Your task to perform on an android device: Open settings on Google Maps Image 0: 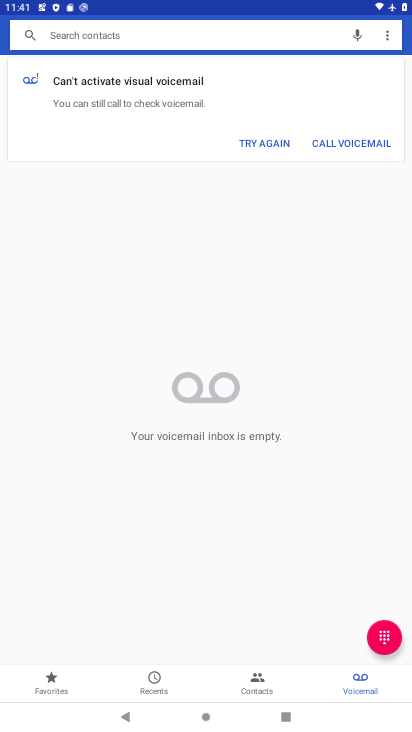
Step 0: press home button
Your task to perform on an android device: Open settings on Google Maps Image 1: 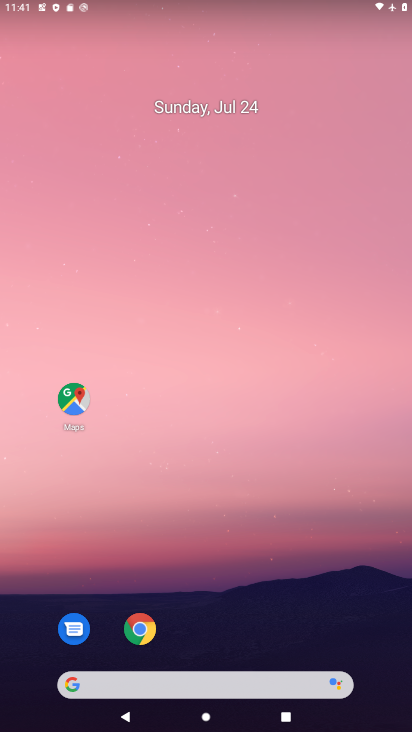
Step 1: click (78, 413)
Your task to perform on an android device: Open settings on Google Maps Image 2: 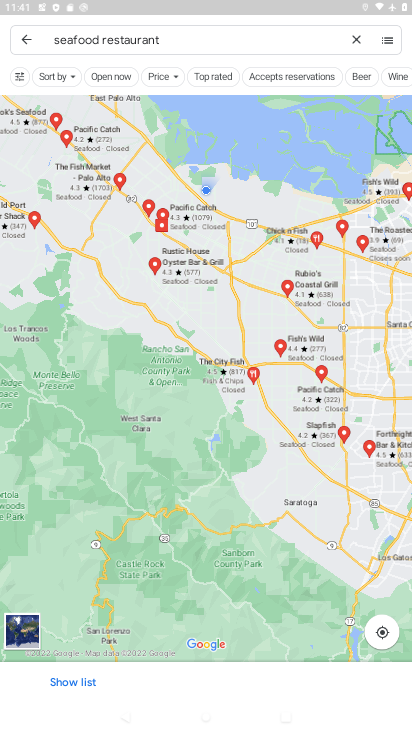
Step 2: click (24, 42)
Your task to perform on an android device: Open settings on Google Maps Image 3: 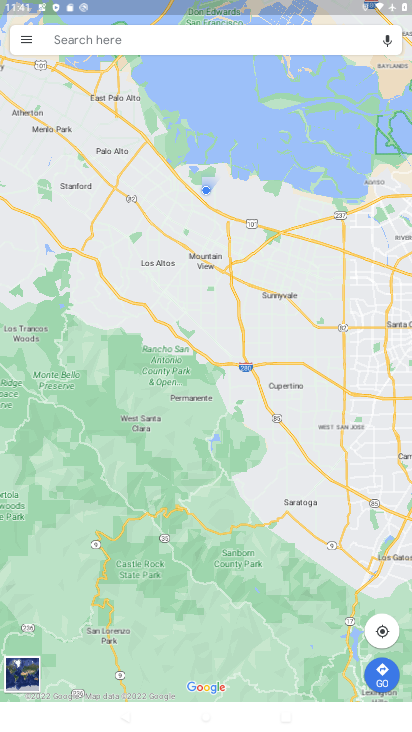
Step 3: click (32, 37)
Your task to perform on an android device: Open settings on Google Maps Image 4: 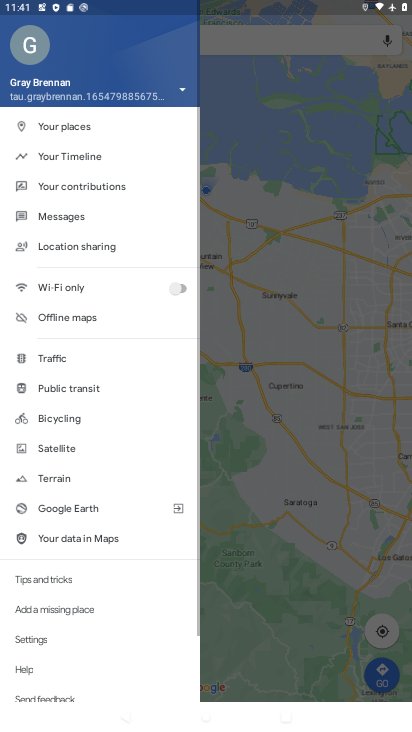
Step 4: click (84, 161)
Your task to perform on an android device: Open settings on Google Maps Image 5: 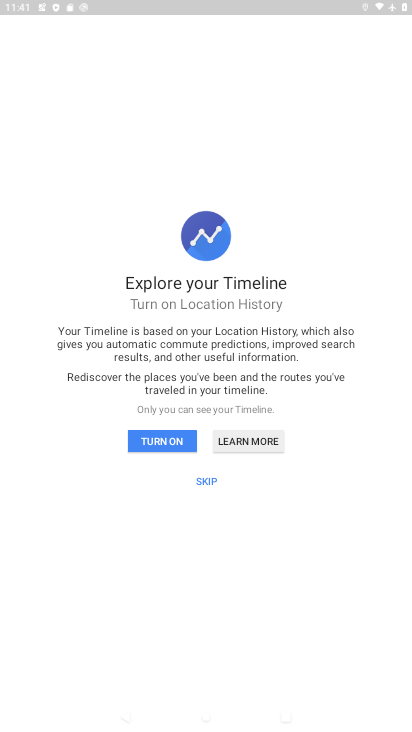
Step 5: task complete